Your task to perform on an android device: Go to calendar. Show me events next week Image 0: 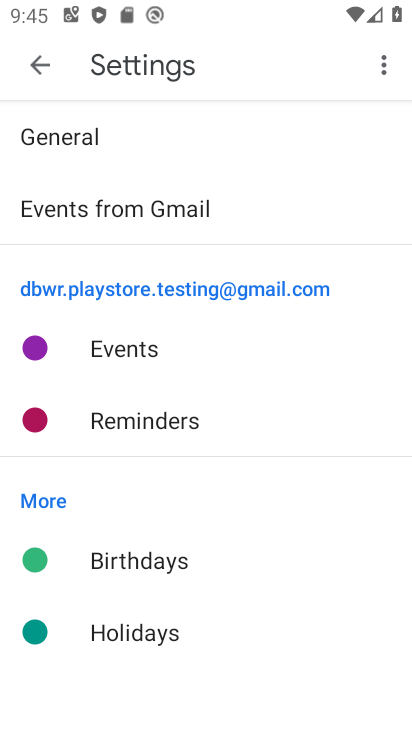
Step 0: press home button
Your task to perform on an android device: Go to calendar. Show me events next week Image 1: 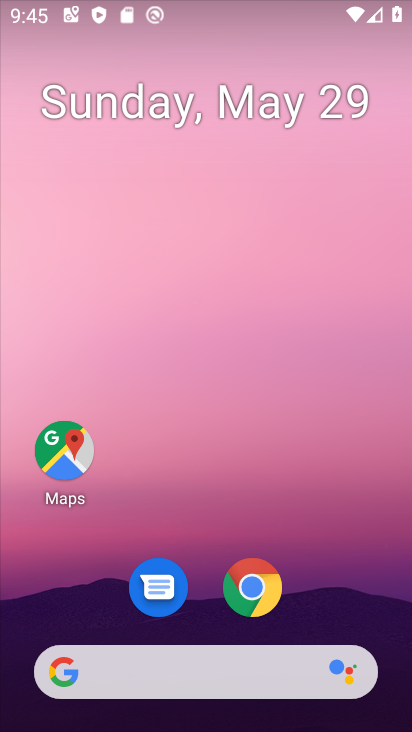
Step 1: drag from (147, 518) to (201, 77)
Your task to perform on an android device: Go to calendar. Show me events next week Image 2: 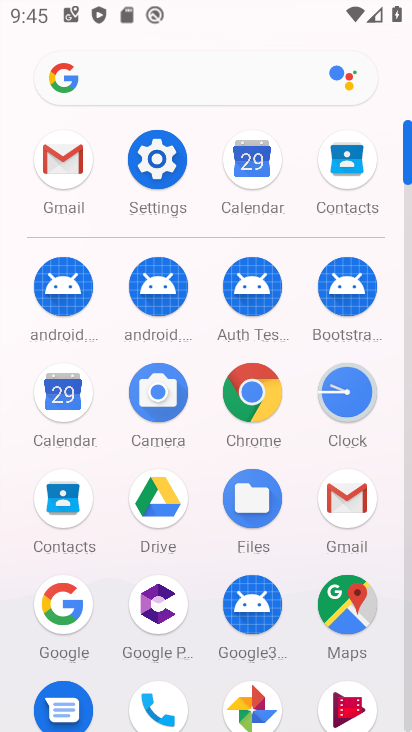
Step 2: click (53, 401)
Your task to perform on an android device: Go to calendar. Show me events next week Image 3: 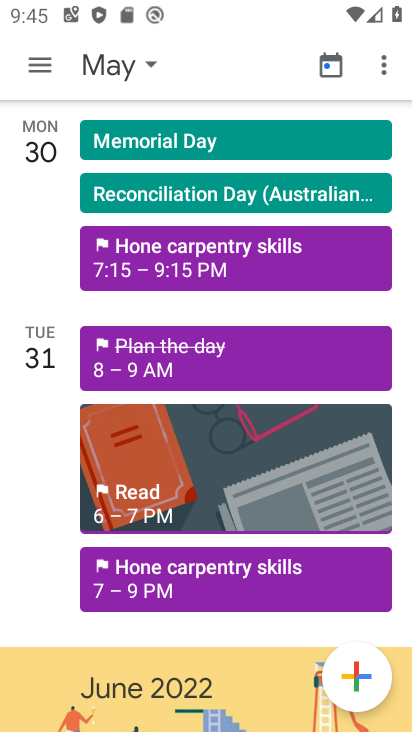
Step 3: click (133, 66)
Your task to perform on an android device: Go to calendar. Show me events next week Image 4: 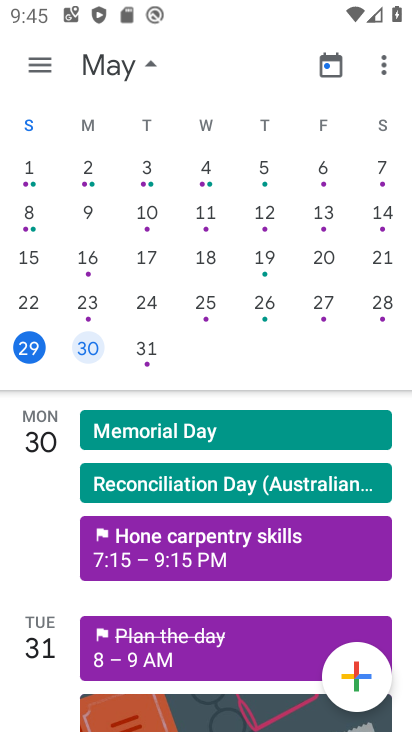
Step 4: drag from (369, 224) to (6, 258)
Your task to perform on an android device: Go to calendar. Show me events next week Image 5: 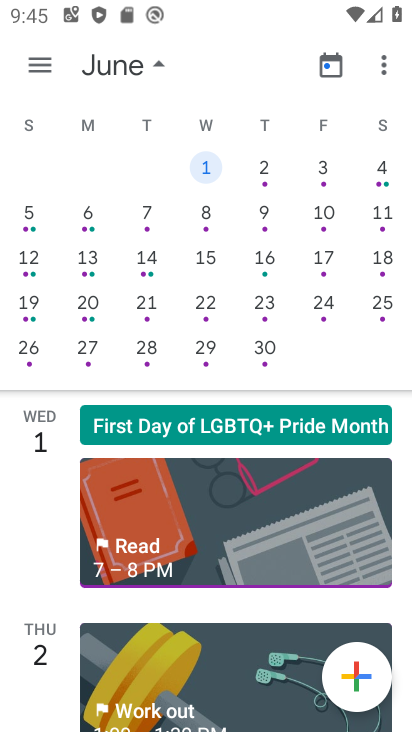
Step 5: click (89, 214)
Your task to perform on an android device: Go to calendar. Show me events next week Image 6: 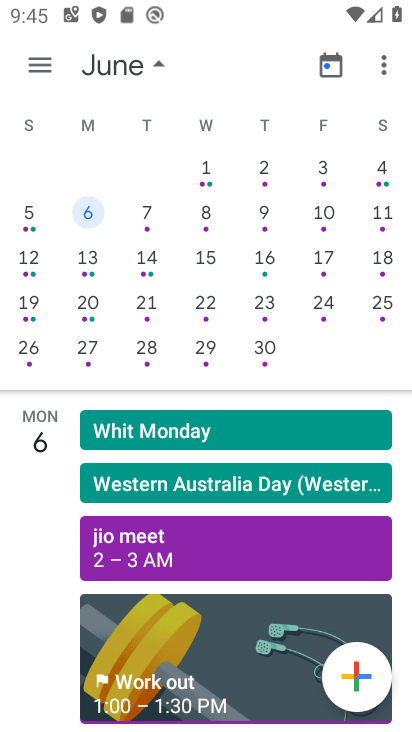
Step 6: drag from (173, 603) to (246, 177)
Your task to perform on an android device: Go to calendar. Show me events next week Image 7: 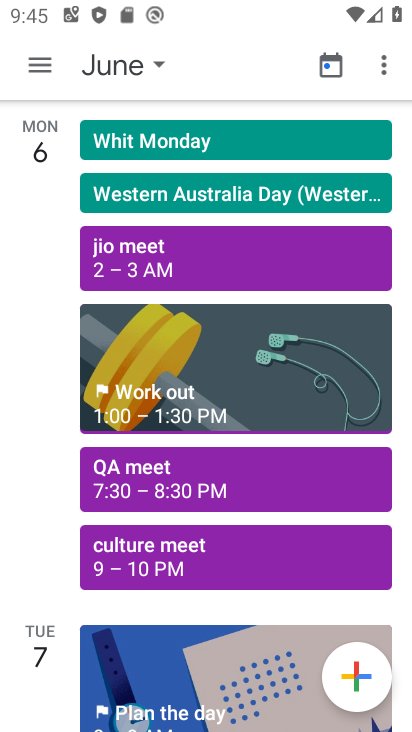
Step 7: click (144, 143)
Your task to perform on an android device: Go to calendar. Show me events next week Image 8: 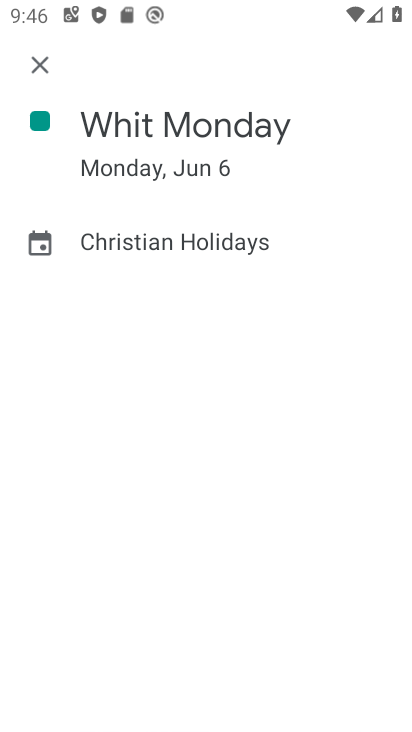
Step 8: task complete